Your task to perform on an android device: turn off translation in the chrome app Image 0: 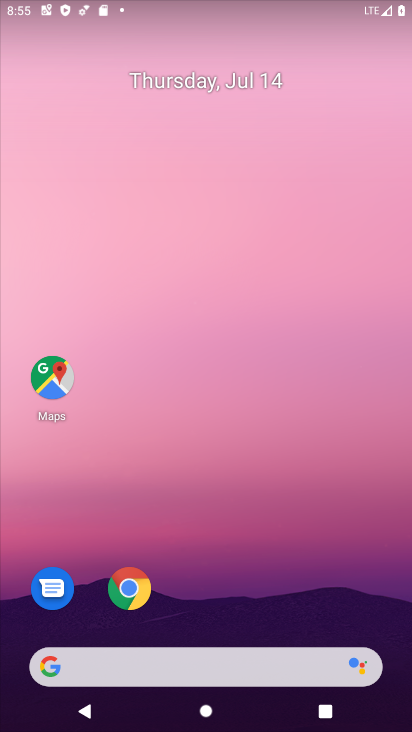
Step 0: click (254, 28)
Your task to perform on an android device: turn off translation in the chrome app Image 1: 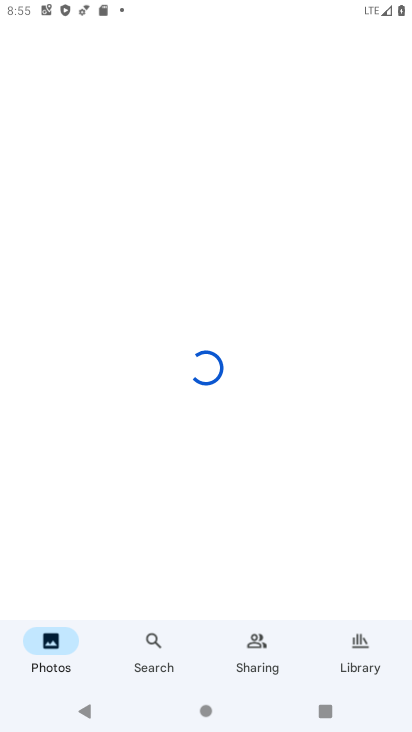
Step 1: press home button
Your task to perform on an android device: turn off translation in the chrome app Image 2: 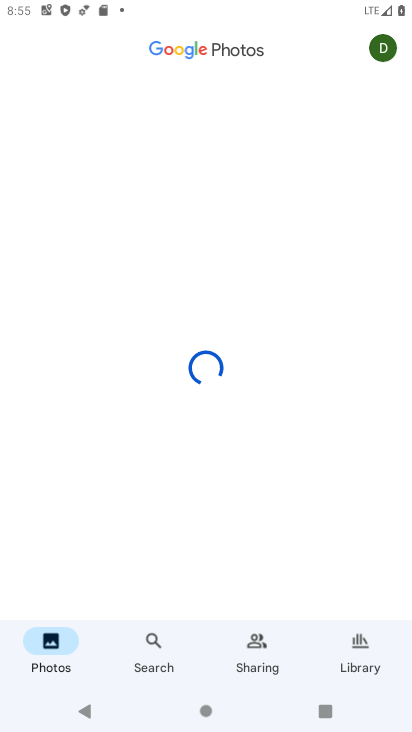
Step 2: drag from (378, 682) to (236, 42)
Your task to perform on an android device: turn off translation in the chrome app Image 3: 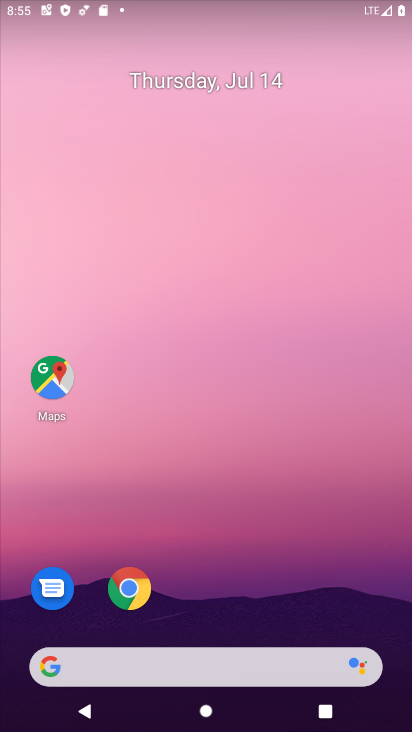
Step 3: drag from (384, 634) to (169, 11)
Your task to perform on an android device: turn off translation in the chrome app Image 4: 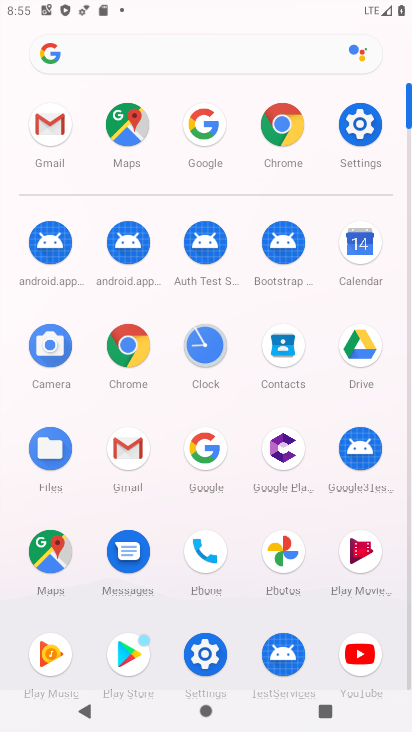
Step 4: click (124, 355)
Your task to perform on an android device: turn off translation in the chrome app Image 5: 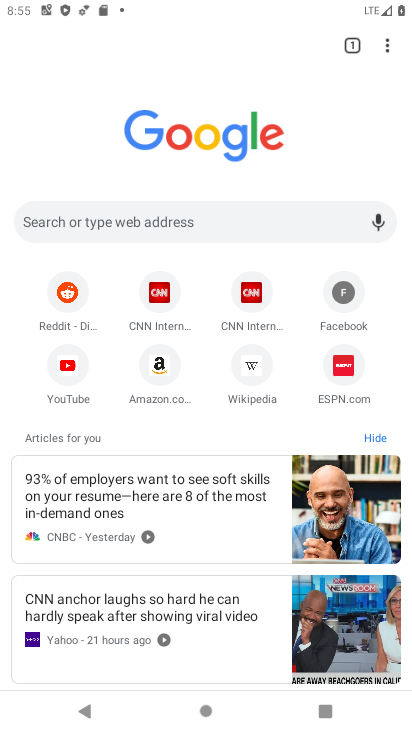
Step 5: click (386, 41)
Your task to perform on an android device: turn off translation in the chrome app Image 6: 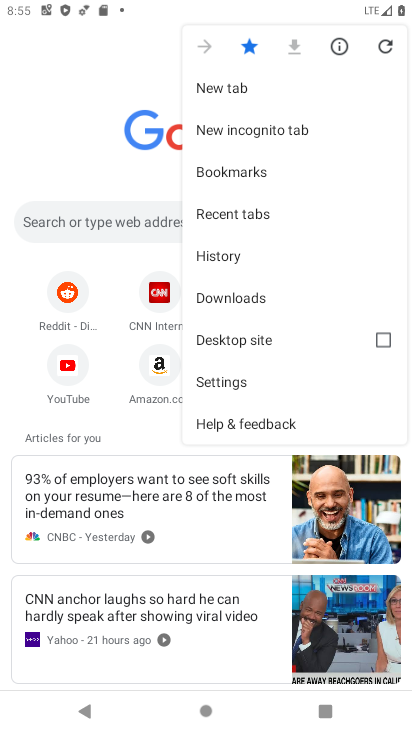
Step 6: click (250, 377)
Your task to perform on an android device: turn off translation in the chrome app Image 7: 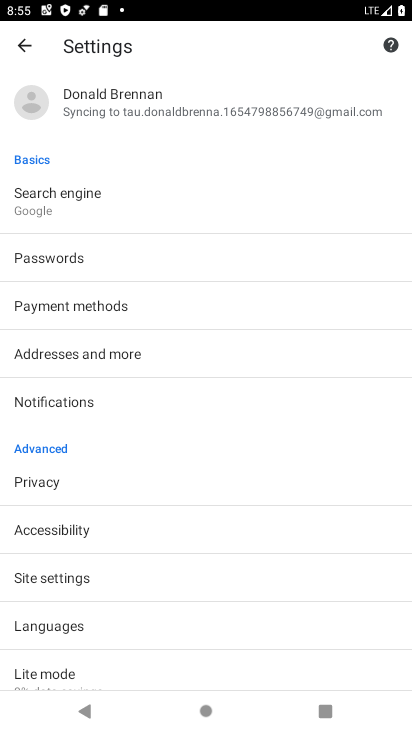
Step 7: click (115, 623)
Your task to perform on an android device: turn off translation in the chrome app Image 8: 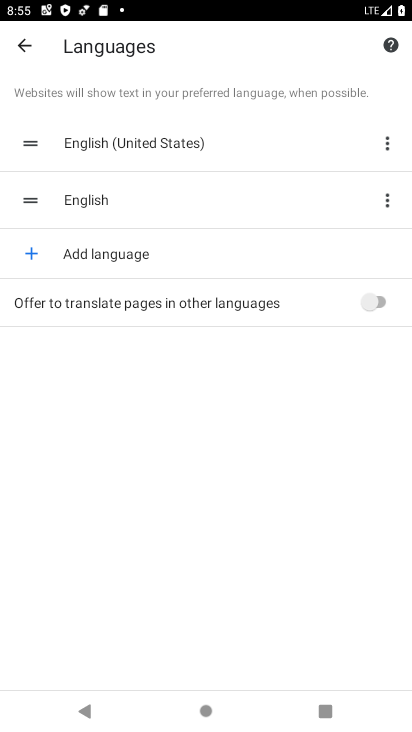
Step 8: task complete